Your task to perform on an android device: check the backup settings in the google photos Image 0: 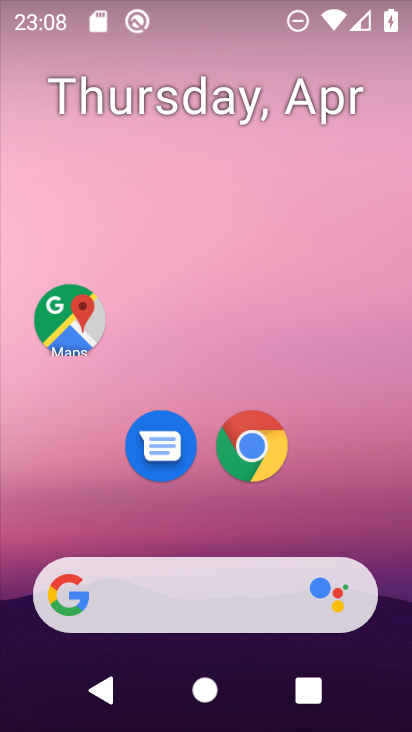
Step 0: drag from (183, 485) to (180, 63)
Your task to perform on an android device: check the backup settings in the google photos Image 1: 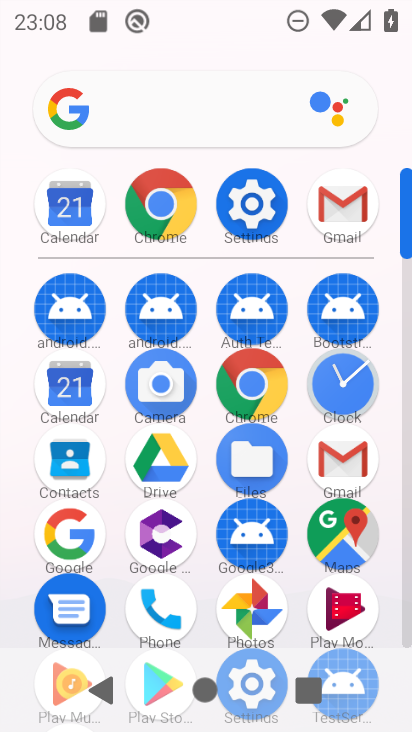
Step 1: click (267, 591)
Your task to perform on an android device: check the backup settings in the google photos Image 2: 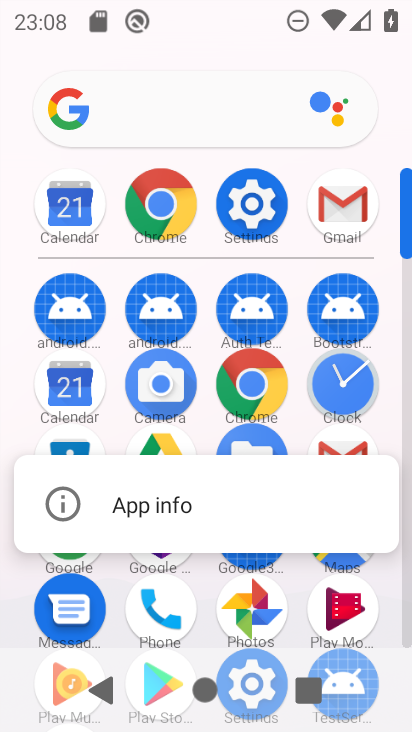
Step 2: click (112, 525)
Your task to perform on an android device: check the backup settings in the google photos Image 3: 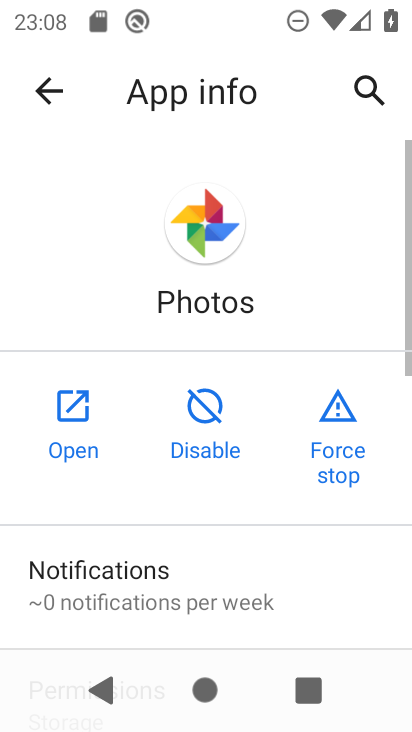
Step 3: click (58, 421)
Your task to perform on an android device: check the backup settings in the google photos Image 4: 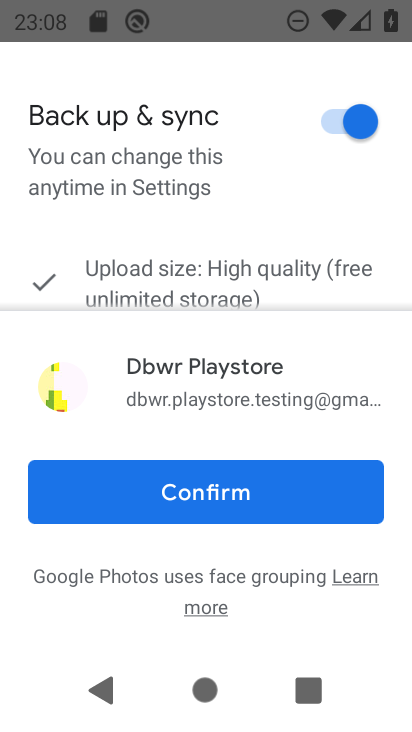
Step 4: click (162, 493)
Your task to perform on an android device: check the backup settings in the google photos Image 5: 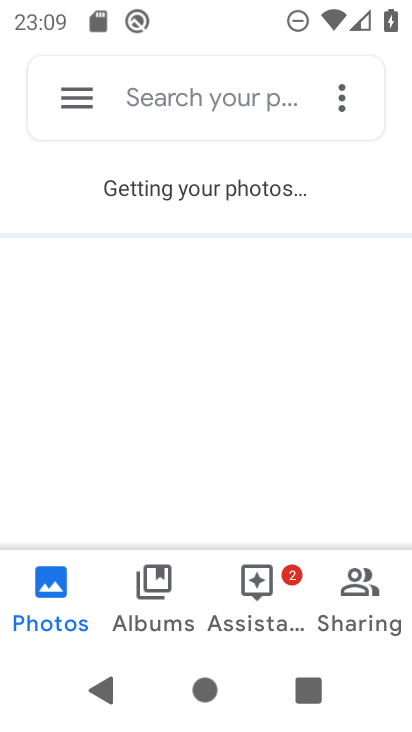
Step 5: click (72, 113)
Your task to perform on an android device: check the backup settings in the google photos Image 6: 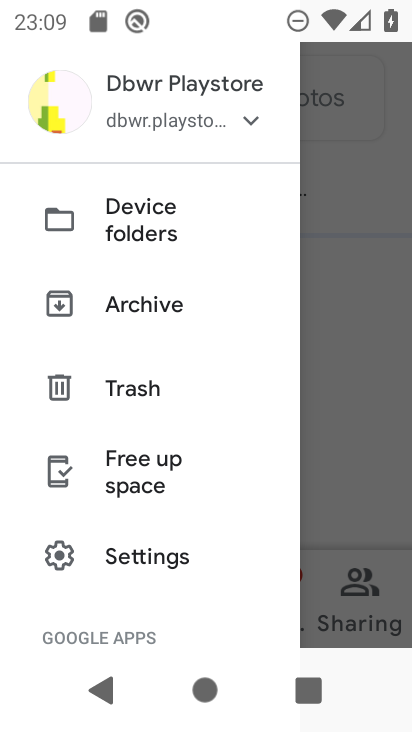
Step 6: click (142, 574)
Your task to perform on an android device: check the backup settings in the google photos Image 7: 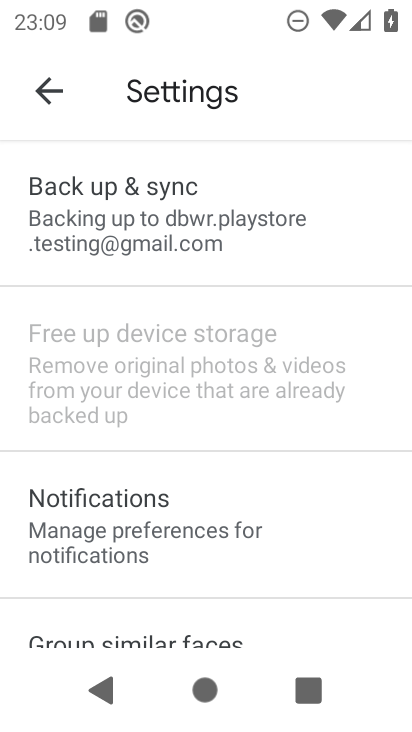
Step 7: click (162, 207)
Your task to perform on an android device: check the backup settings in the google photos Image 8: 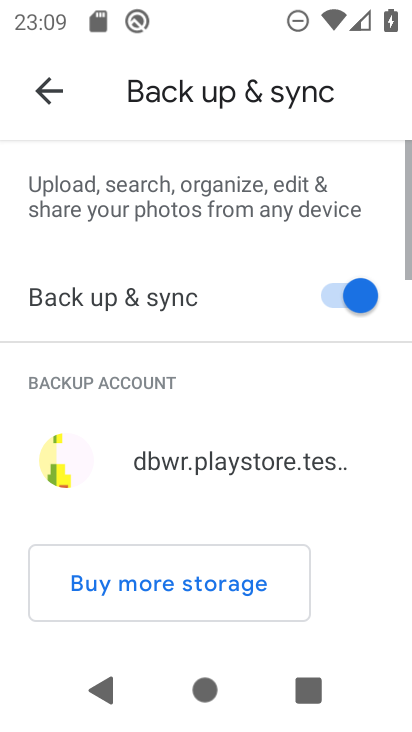
Step 8: task complete